Your task to perform on an android device: open chrome and create a bookmark for the current page Image 0: 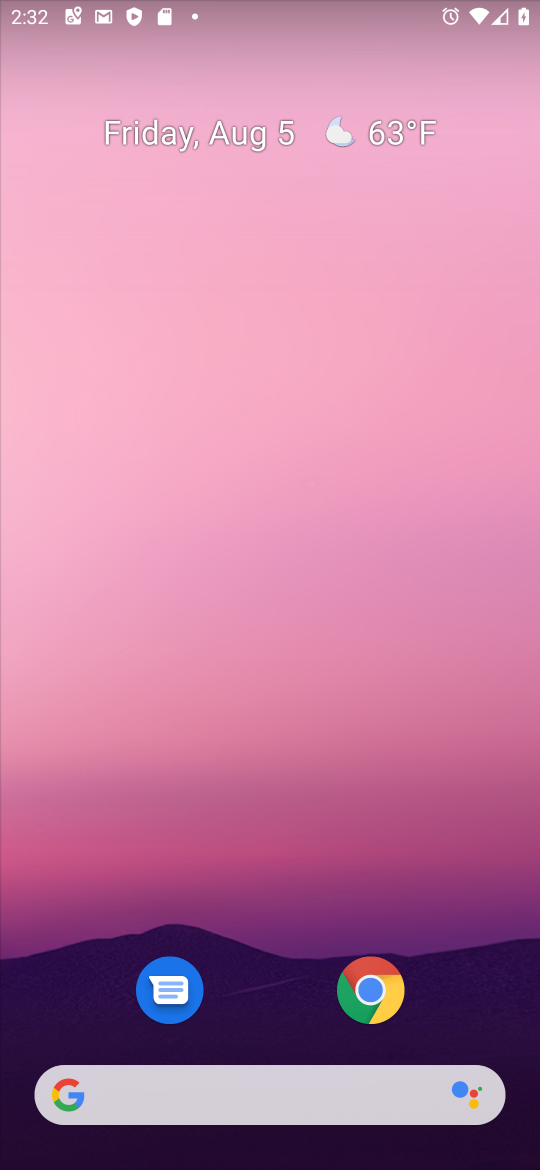
Step 0: click (369, 994)
Your task to perform on an android device: open chrome and create a bookmark for the current page Image 1: 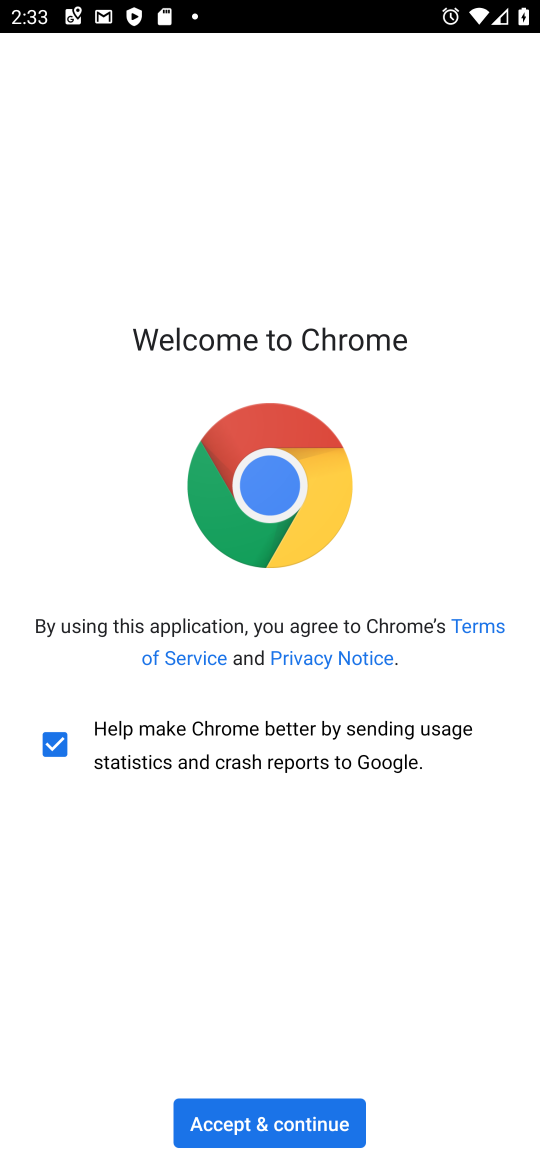
Step 1: click (264, 1122)
Your task to perform on an android device: open chrome and create a bookmark for the current page Image 2: 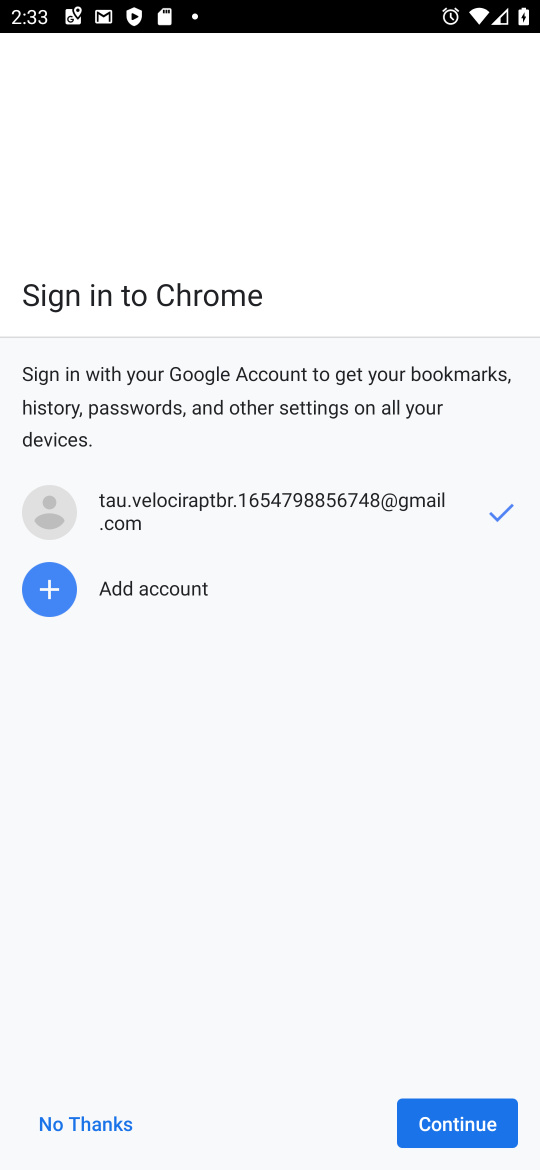
Step 2: click (423, 1128)
Your task to perform on an android device: open chrome and create a bookmark for the current page Image 3: 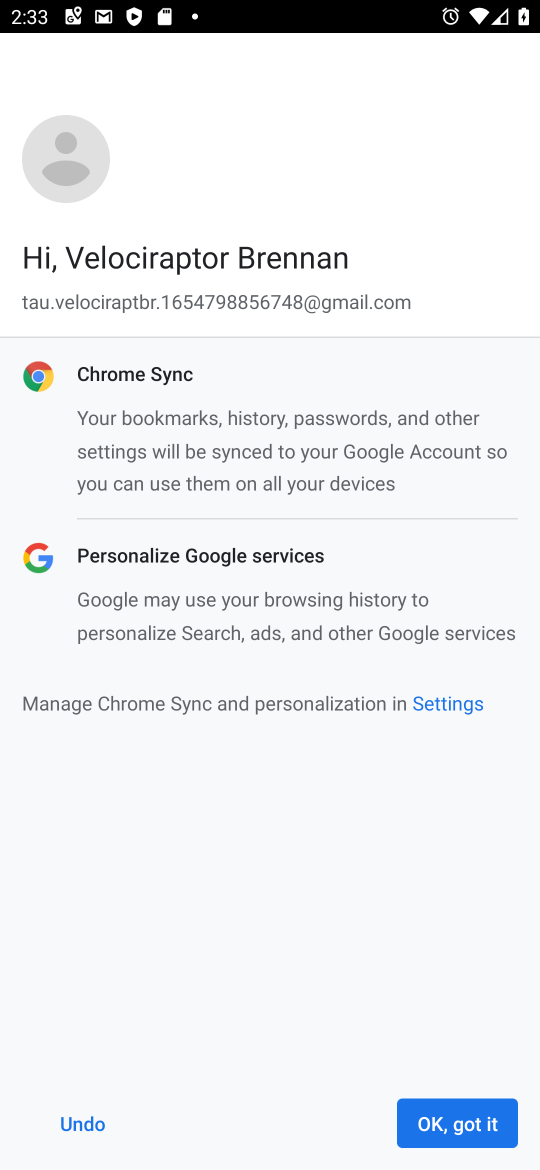
Step 3: click (423, 1128)
Your task to perform on an android device: open chrome and create a bookmark for the current page Image 4: 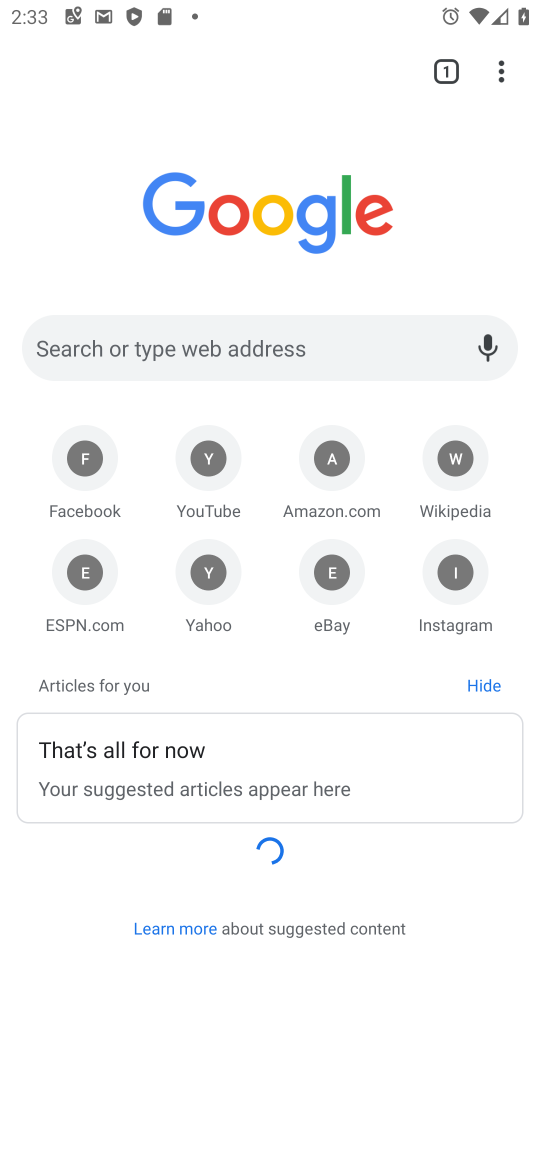
Step 4: drag from (503, 63) to (301, 610)
Your task to perform on an android device: open chrome and create a bookmark for the current page Image 5: 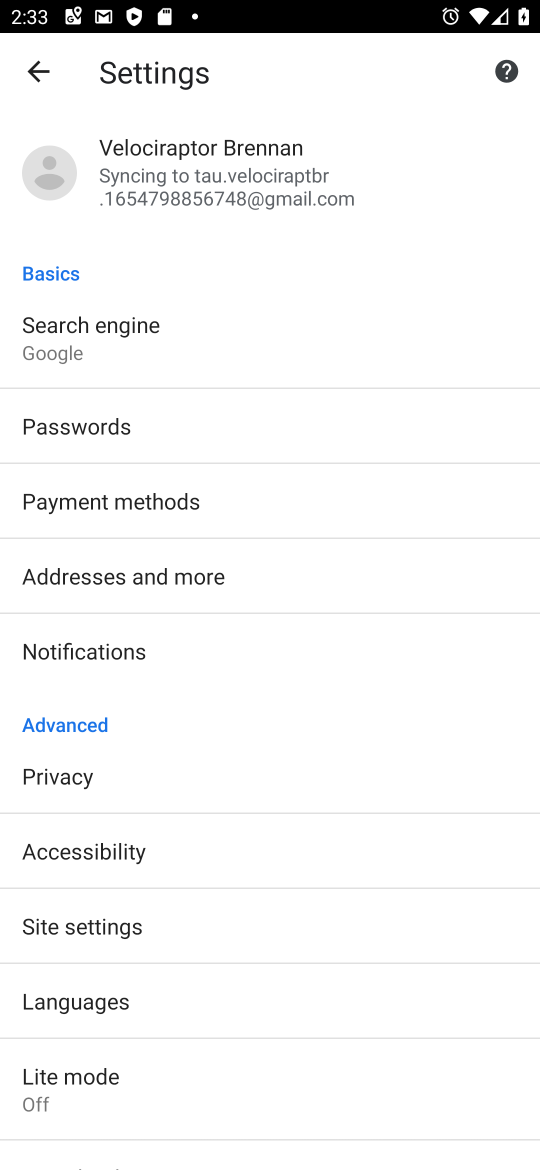
Step 5: click (27, 71)
Your task to perform on an android device: open chrome and create a bookmark for the current page Image 6: 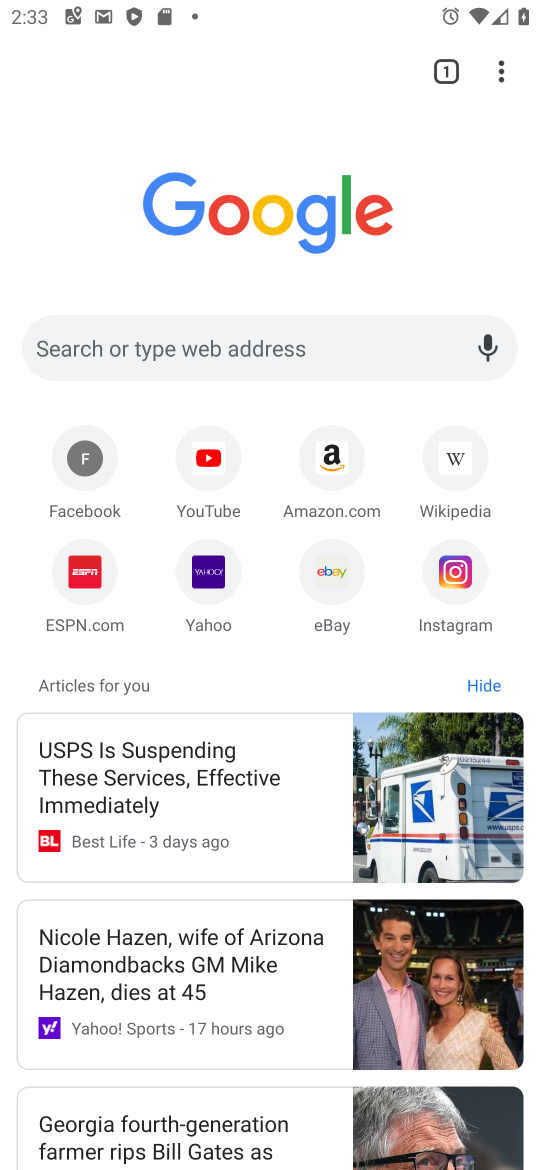
Step 6: task complete